Your task to perform on an android device: change the clock display to analog Image 0: 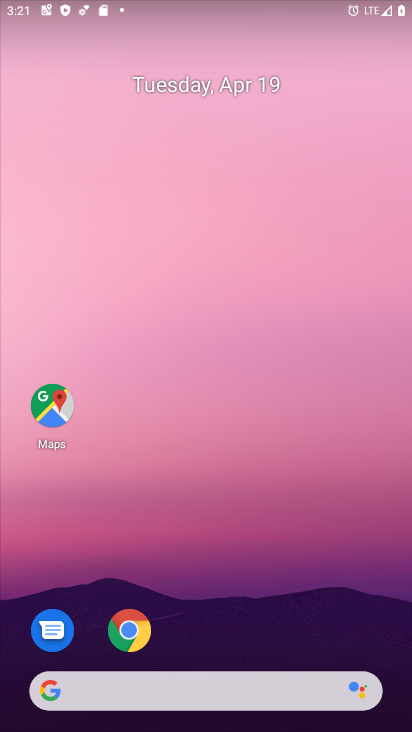
Step 0: drag from (218, 723) to (222, 51)
Your task to perform on an android device: change the clock display to analog Image 1: 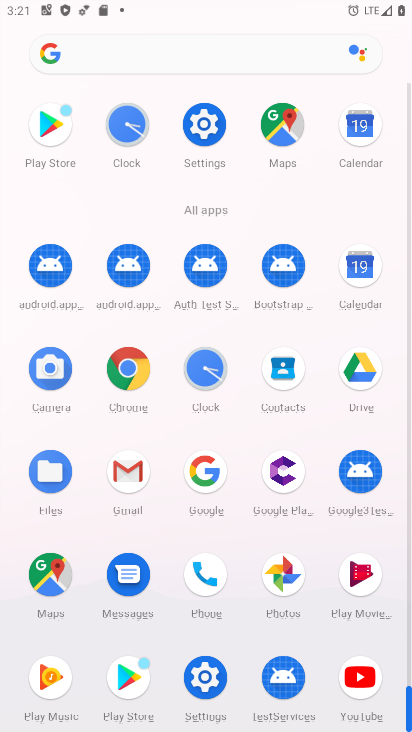
Step 1: click (207, 368)
Your task to perform on an android device: change the clock display to analog Image 2: 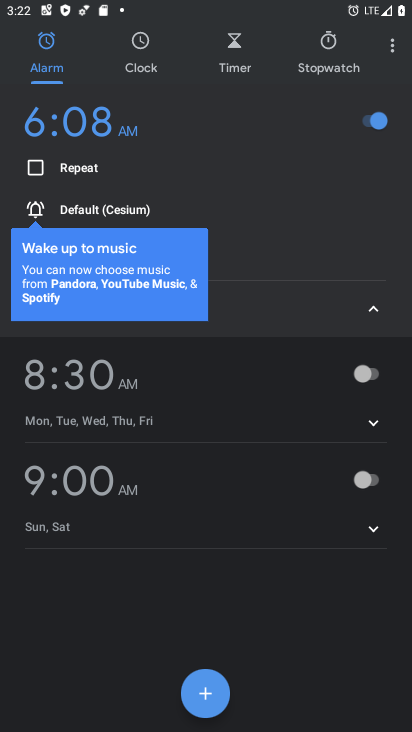
Step 2: click (391, 49)
Your task to perform on an android device: change the clock display to analog Image 3: 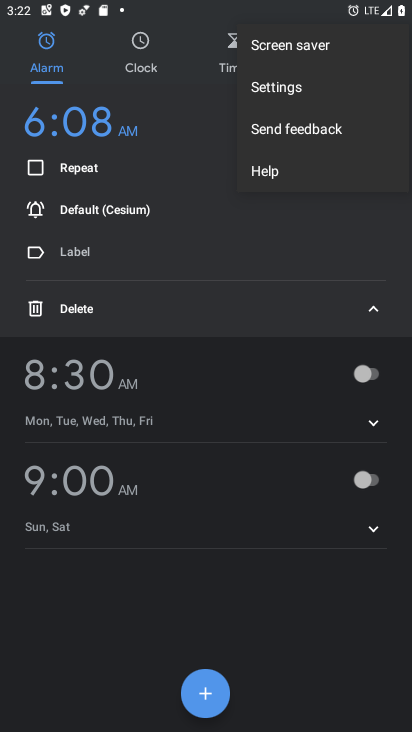
Step 3: click (270, 89)
Your task to perform on an android device: change the clock display to analog Image 4: 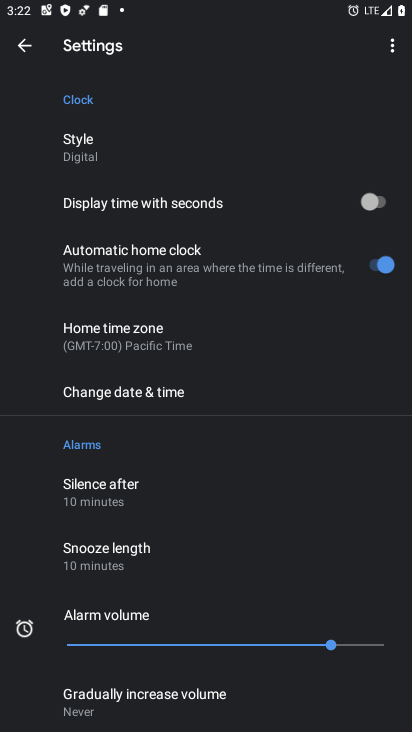
Step 4: click (83, 150)
Your task to perform on an android device: change the clock display to analog Image 5: 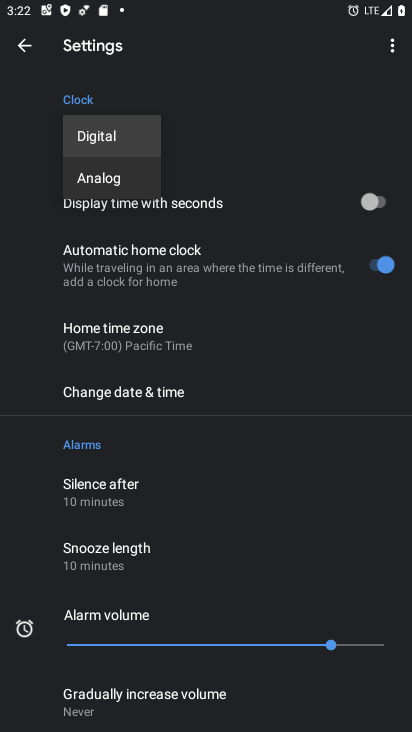
Step 5: click (101, 178)
Your task to perform on an android device: change the clock display to analog Image 6: 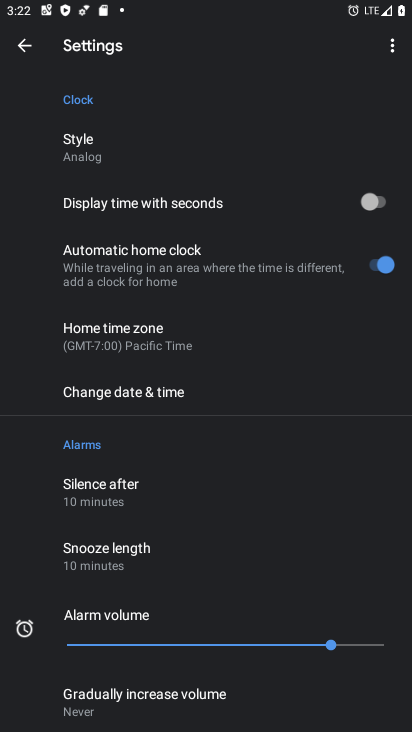
Step 6: task complete